Your task to perform on an android device: install app "Microsoft Outlook" Image 0: 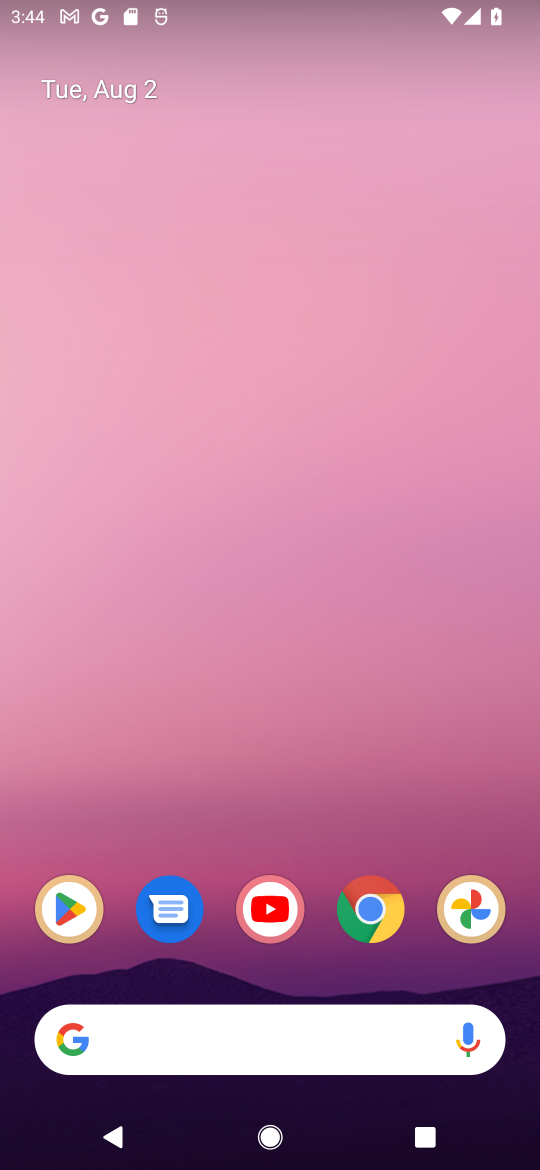
Step 0: drag from (243, 901) to (335, 386)
Your task to perform on an android device: install app "Microsoft Outlook" Image 1: 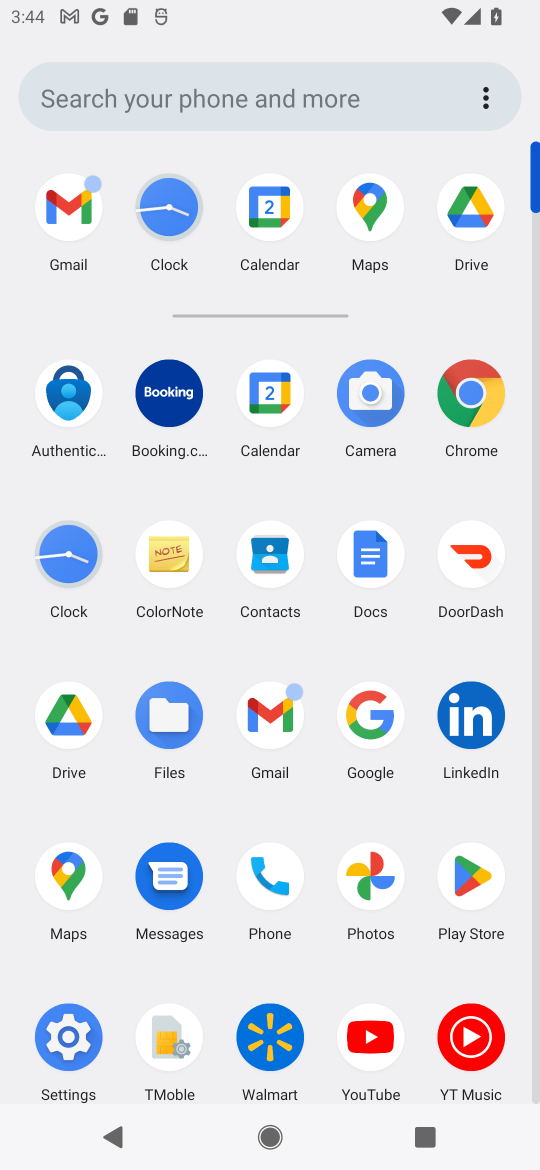
Step 1: click (436, 875)
Your task to perform on an android device: install app "Microsoft Outlook" Image 2: 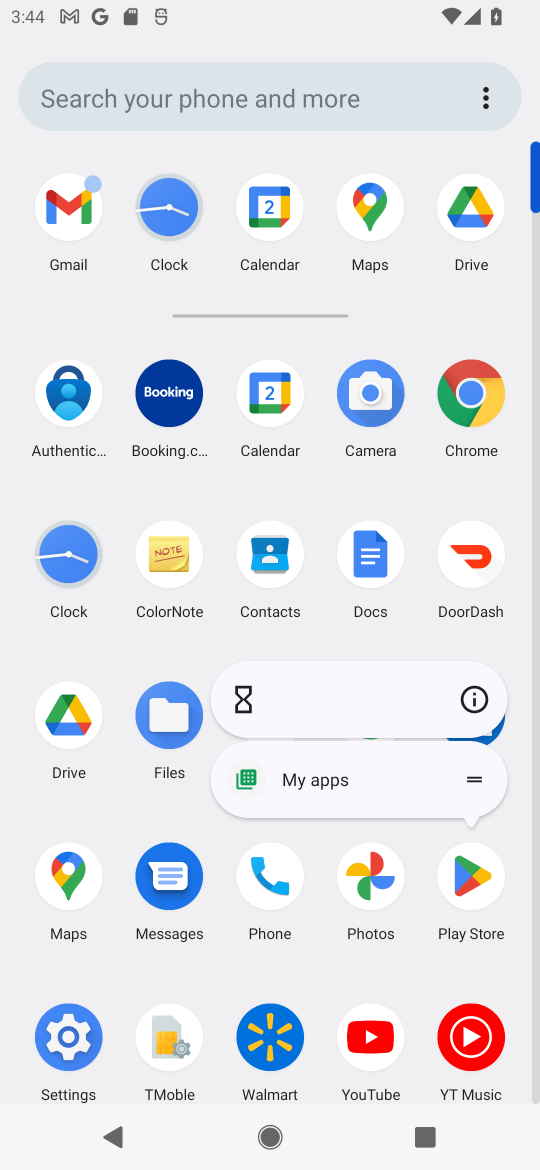
Step 2: click (460, 698)
Your task to perform on an android device: install app "Microsoft Outlook" Image 3: 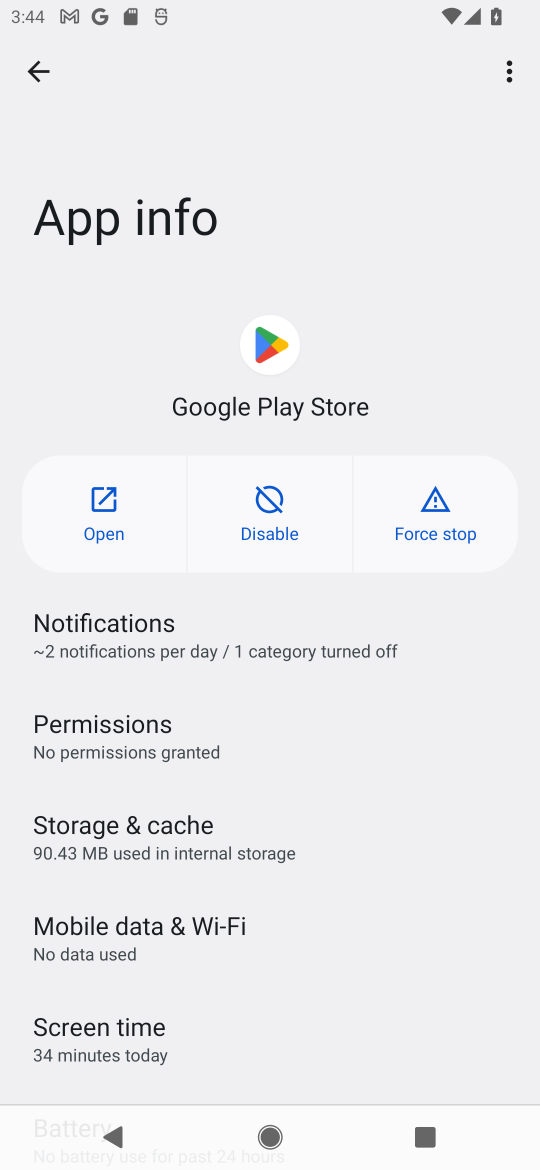
Step 3: click (108, 513)
Your task to perform on an android device: install app "Microsoft Outlook" Image 4: 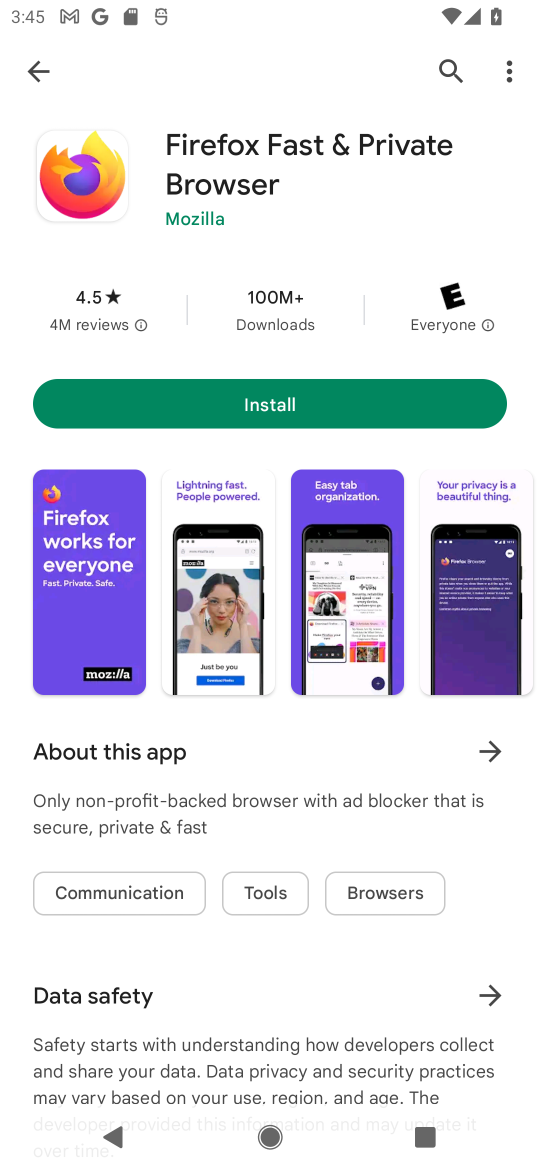
Step 4: click (448, 60)
Your task to perform on an android device: install app "Microsoft Outlook" Image 5: 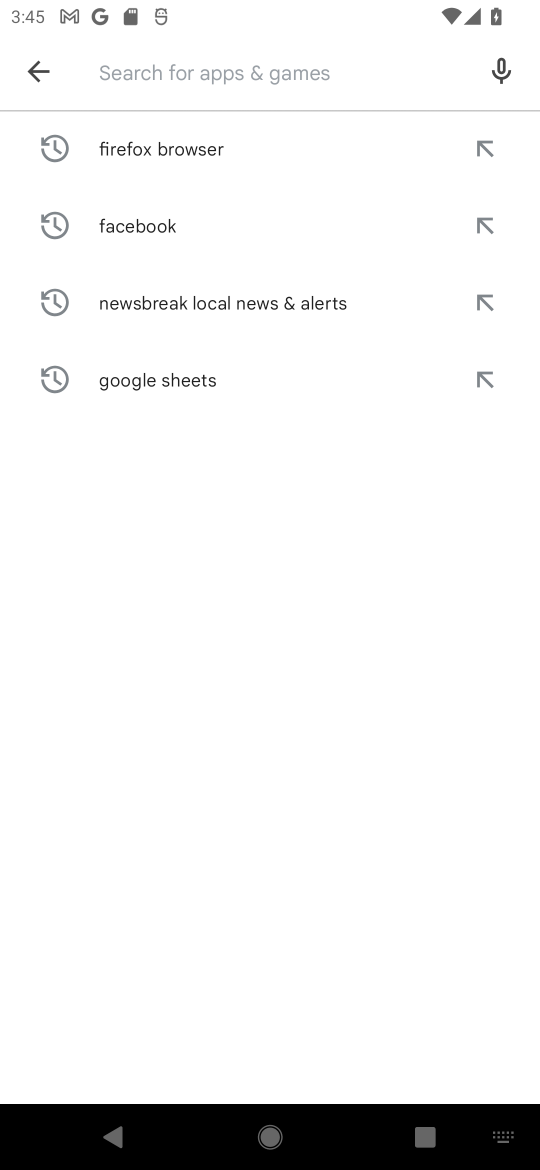
Step 5: type "Microsoft Outlook"
Your task to perform on an android device: install app "Microsoft Outlook" Image 6: 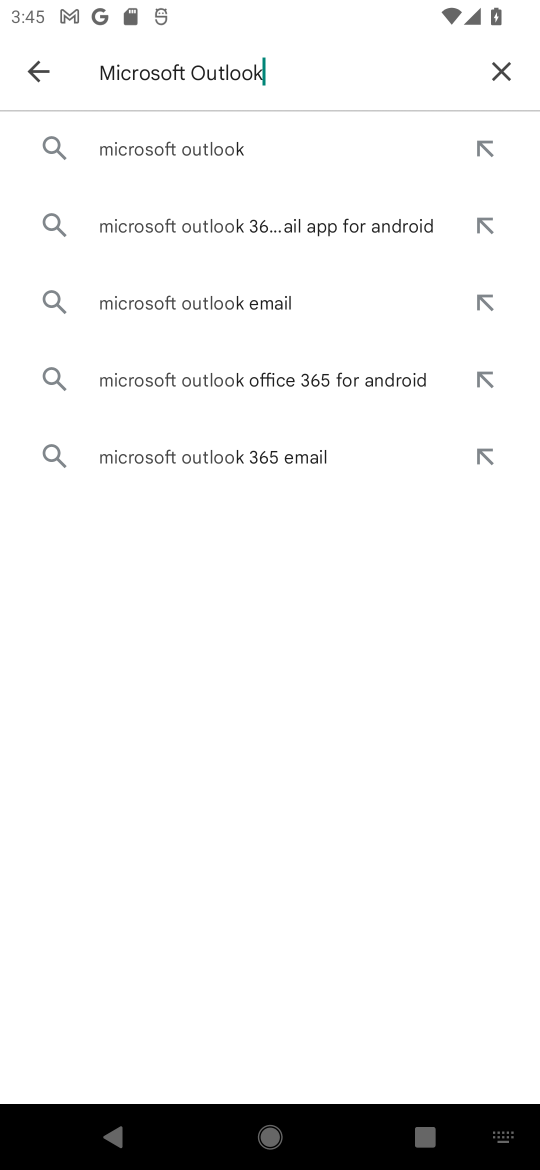
Step 6: type ""
Your task to perform on an android device: install app "Microsoft Outlook" Image 7: 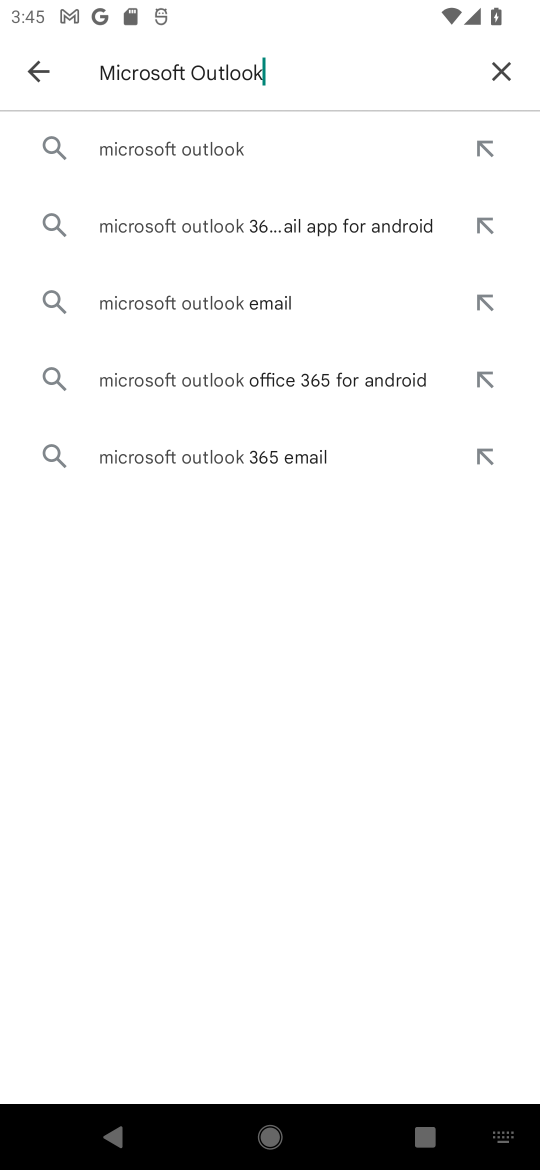
Step 7: click (247, 154)
Your task to perform on an android device: install app "Microsoft Outlook" Image 8: 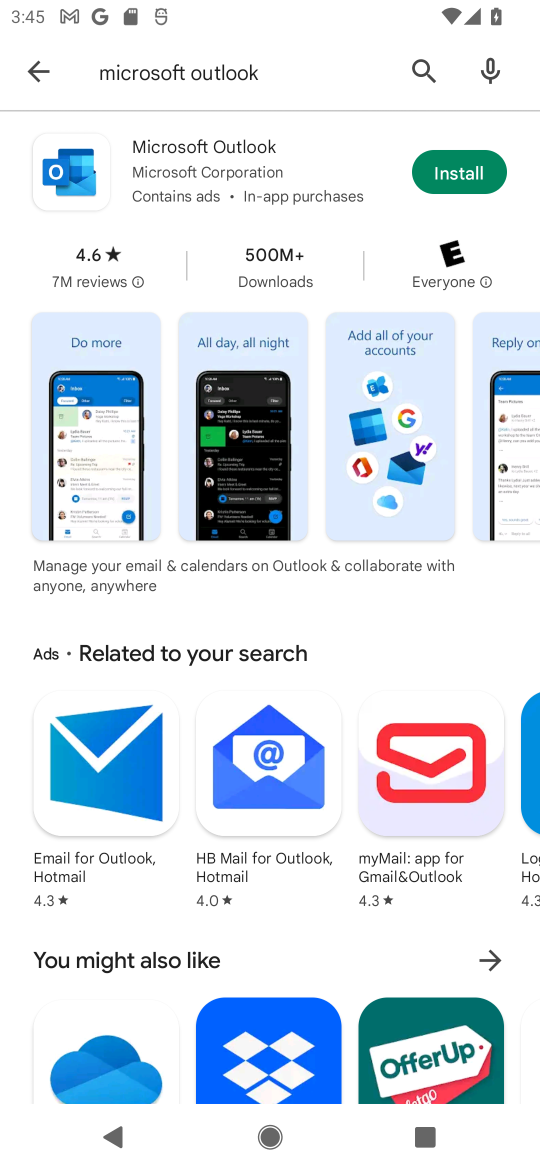
Step 8: click (239, 172)
Your task to perform on an android device: install app "Microsoft Outlook" Image 9: 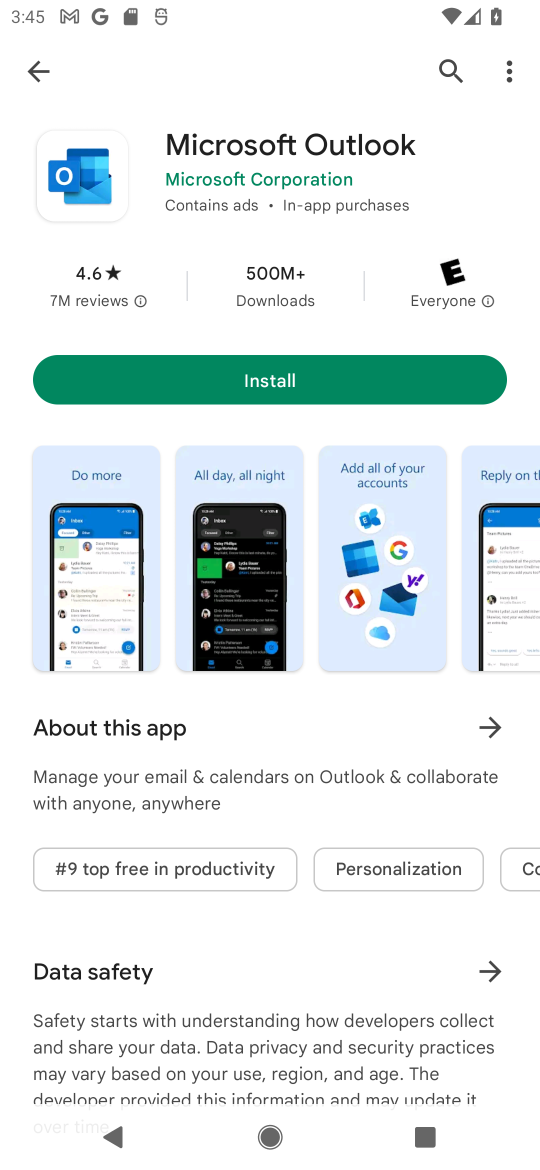
Step 9: click (198, 382)
Your task to perform on an android device: install app "Microsoft Outlook" Image 10: 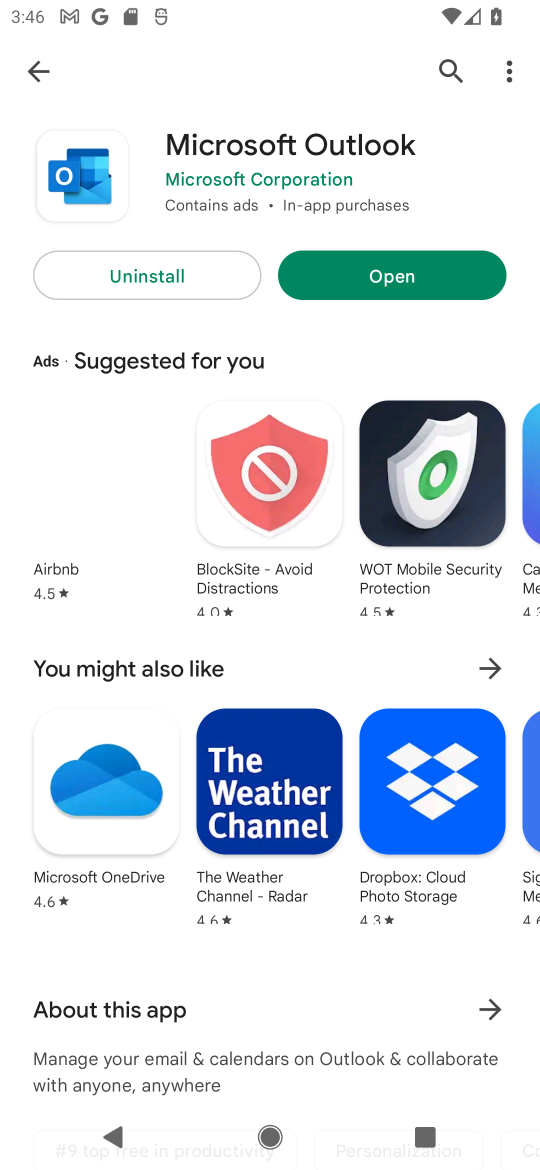
Step 10: task complete